Your task to perform on an android device: add a contact in the contacts app Image 0: 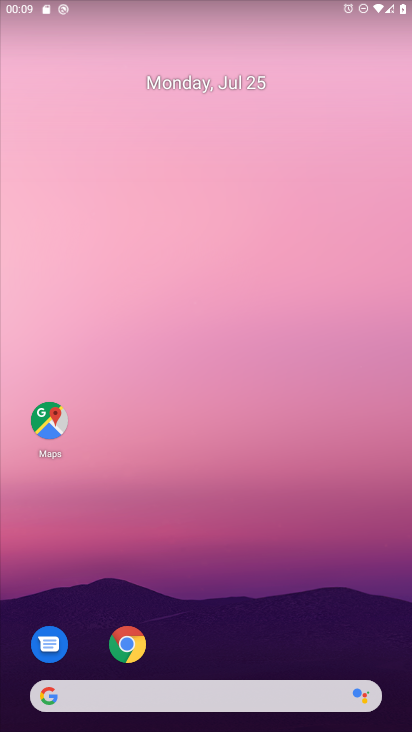
Step 0: drag from (376, 635) to (309, 97)
Your task to perform on an android device: add a contact in the contacts app Image 1: 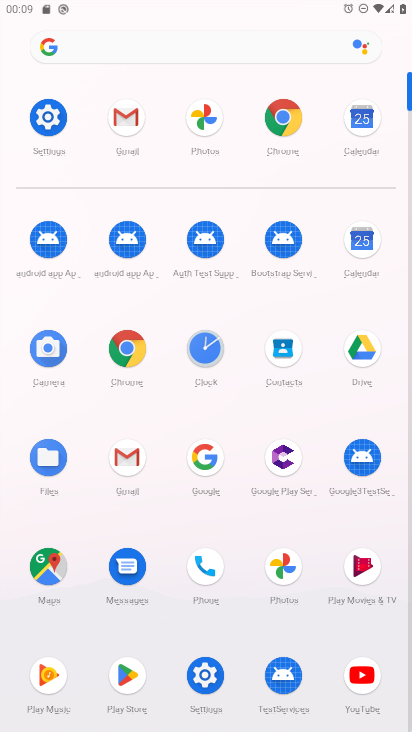
Step 1: click (284, 353)
Your task to perform on an android device: add a contact in the contacts app Image 2: 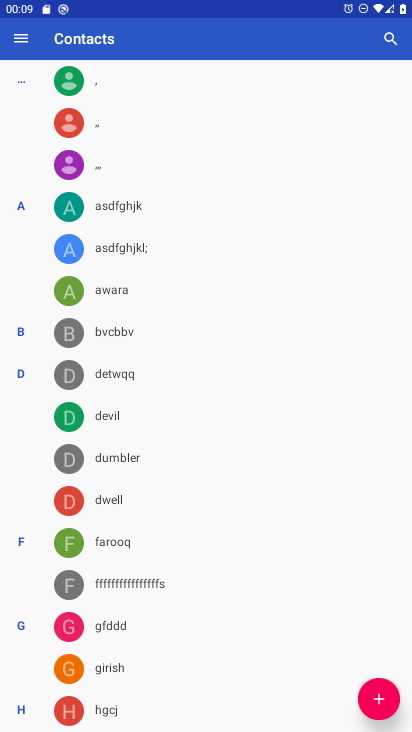
Step 2: click (382, 698)
Your task to perform on an android device: add a contact in the contacts app Image 3: 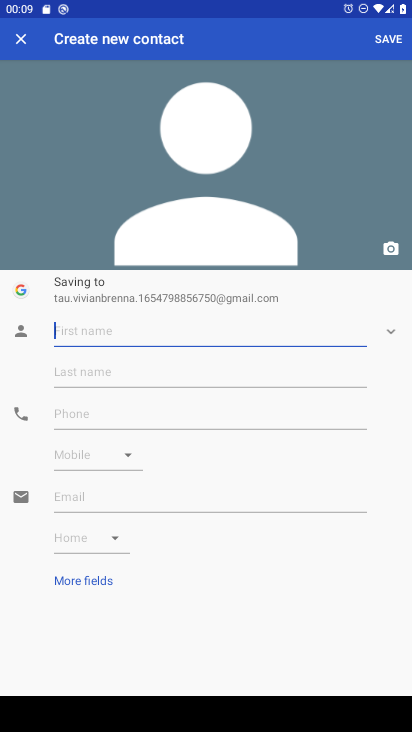
Step 3: type "iejgmgop"
Your task to perform on an android device: add a contact in the contacts app Image 4: 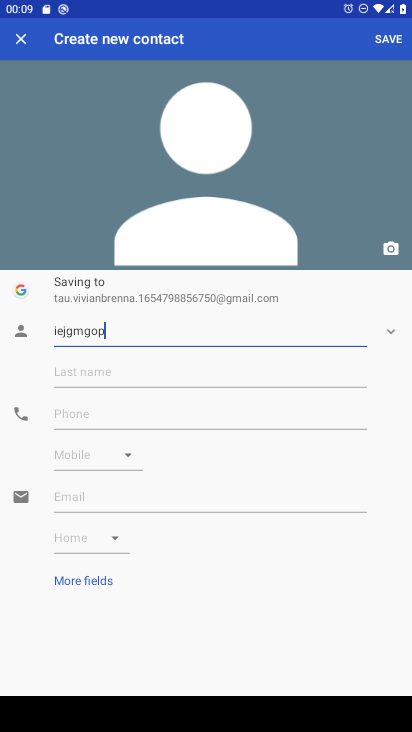
Step 4: click (92, 422)
Your task to perform on an android device: add a contact in the contacts app Image 5: 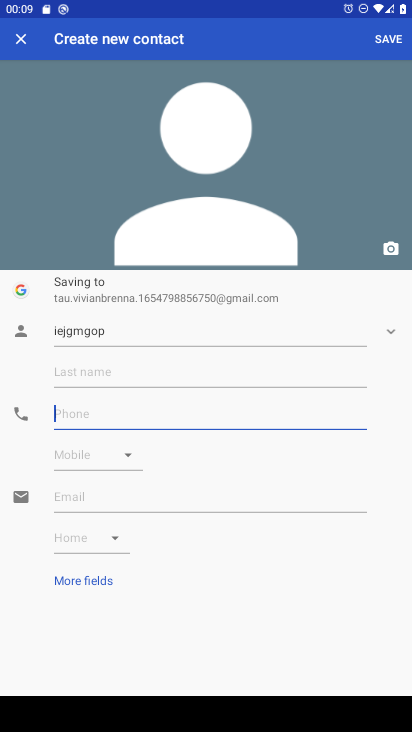
Step 5: type "0987543234"
Your task to perform on an android device: add a contact in the contacts app Image 6: 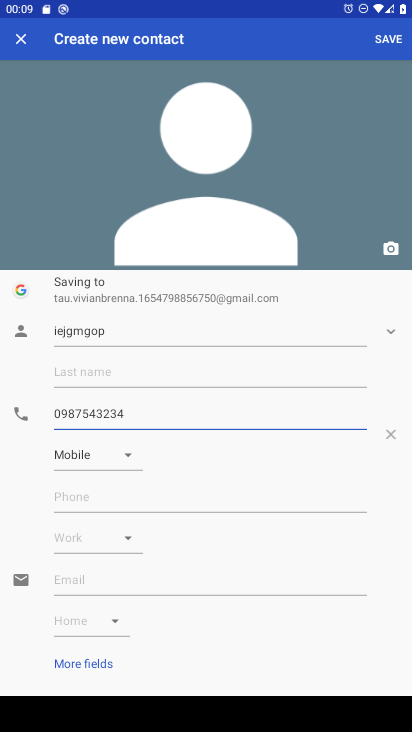
Step 6: click (382, 41)
Your task to perform on an android device: add a contact in the contacts app Image 7: 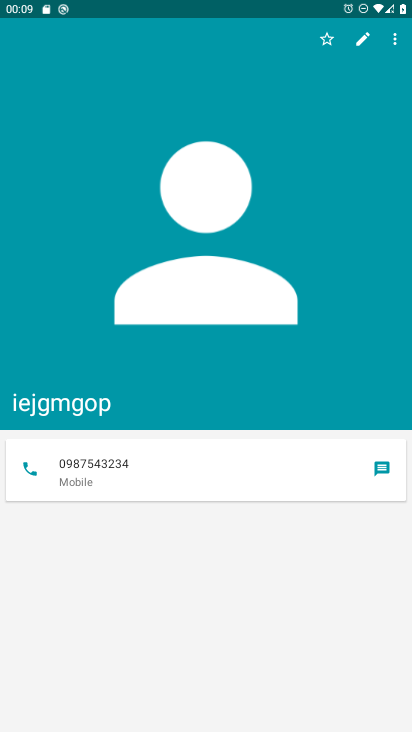
Step 7: task complete